Your task to perform on an android device: turn on improve location accuracy Image 0: 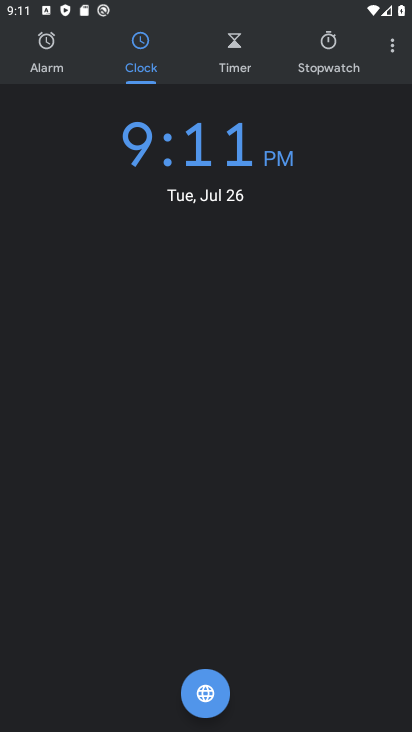
Step 0: press home button
Your task to perform on an android device: turn on improve location accuracy Image 1: 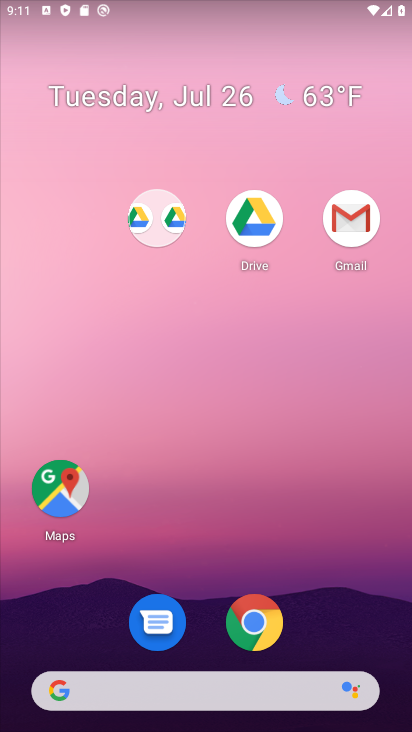
Step 1: drag from (327, 633) to (241, 212)
Your task to perform on an android device: turn on improve location accuracy Image 2: 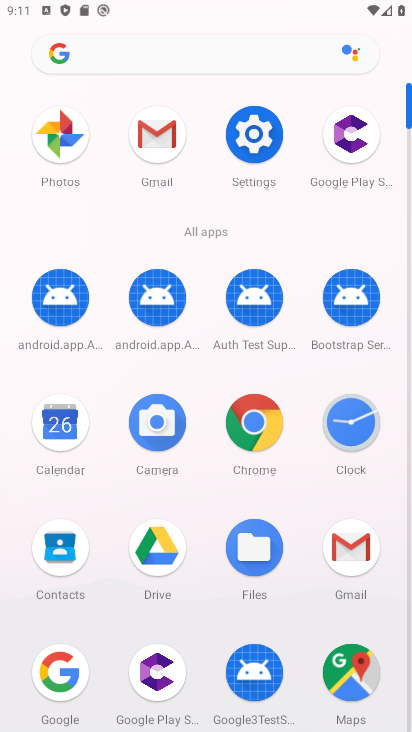
Step 2: click (249, 103)
Your task to perform on an android device: turn on improve location accuracy Image 3: 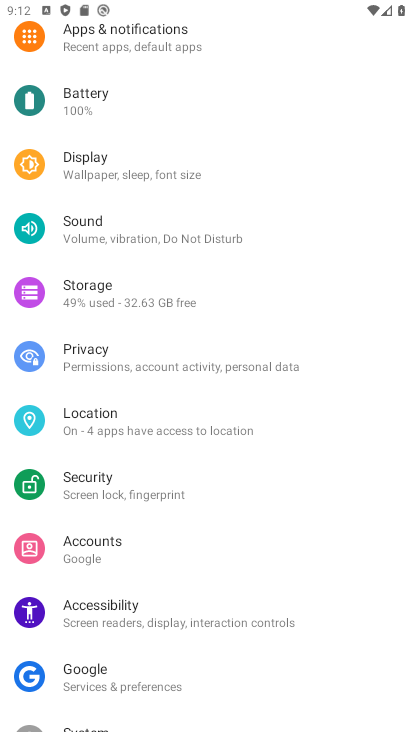
Step 3: task complete